Your task to perform on an android device: Open maps Image 0: 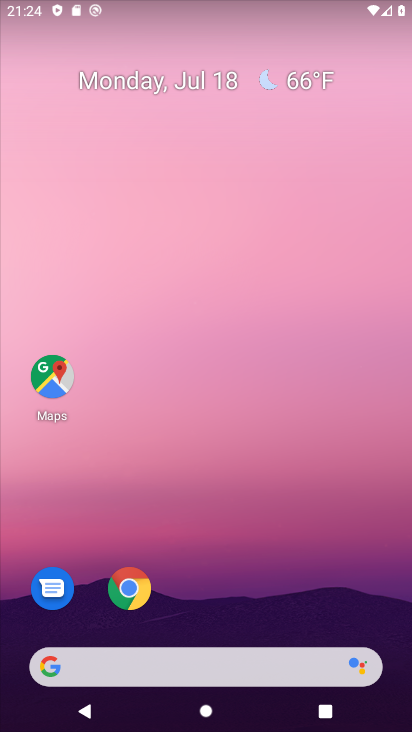
Step 0: click (42, 373)
Your task to perform on an android device: Open maps Image 1: 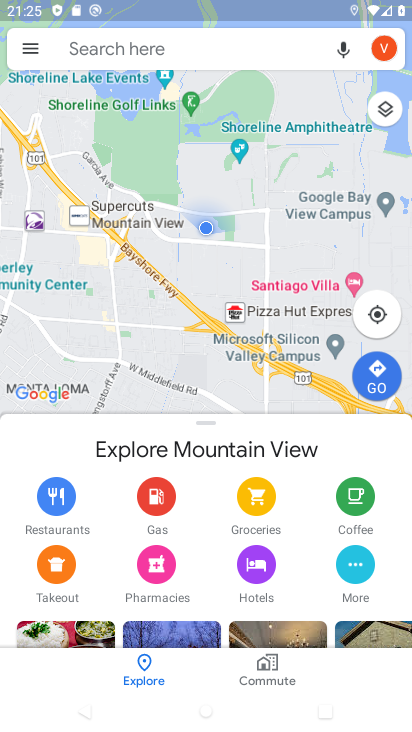
Step 1: task complete